Your task to perform on an android device: Search for seafood restaurants on Google Maps Image 0: 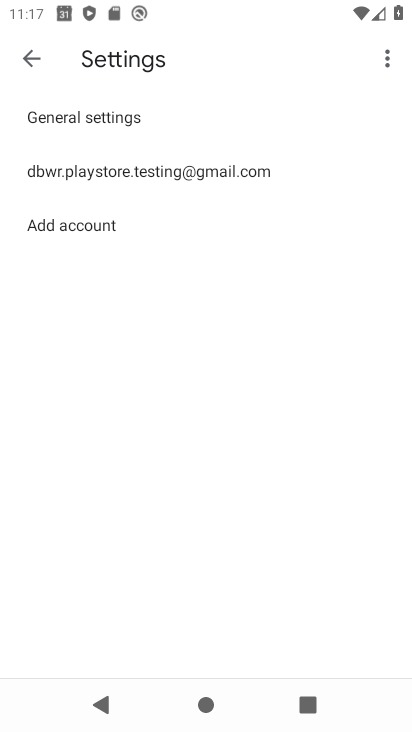
Step 0: press home button
Your task to perform on an android device: Search for seafood restaurants on Google Maps Image 1: 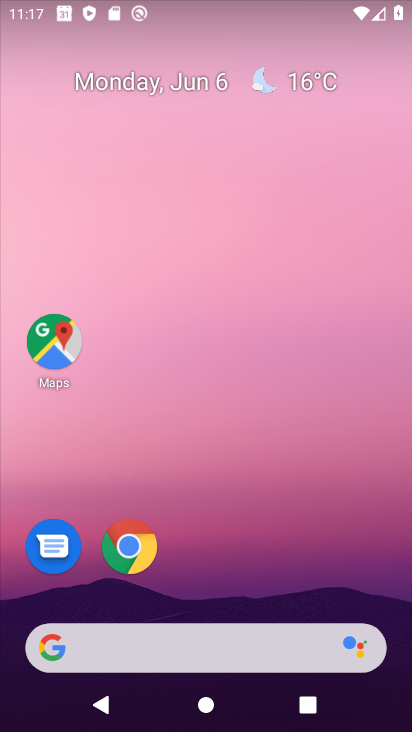
Step 1: click (51, 343)
Your task to perform on an android device: Search for seafood restaurants on Google Maps Image 2: 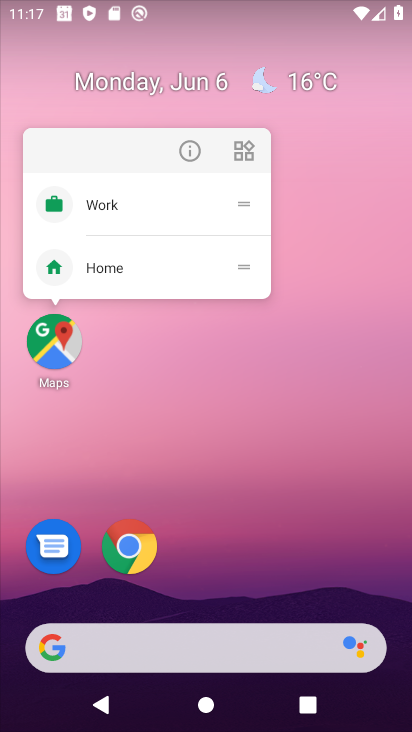
Step 2: click (52, 343)
Your task to perform on an android device: Search for seafood restaurants on Google Maps Image 3: 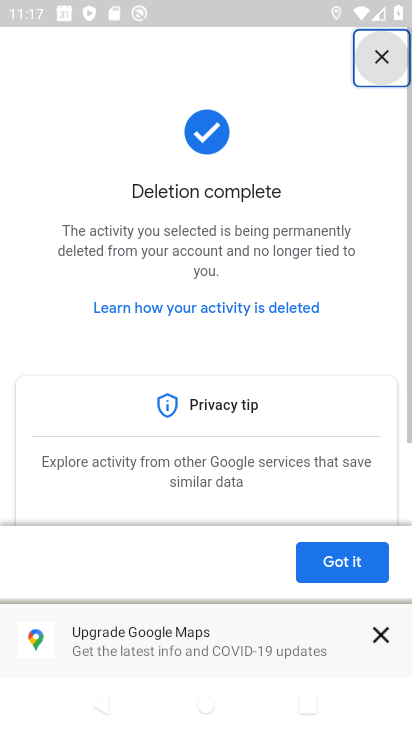
Step 3: click (382, 46)
Your task to perform on an android device: Search for seafood restaurants on Google Maps Image 4: 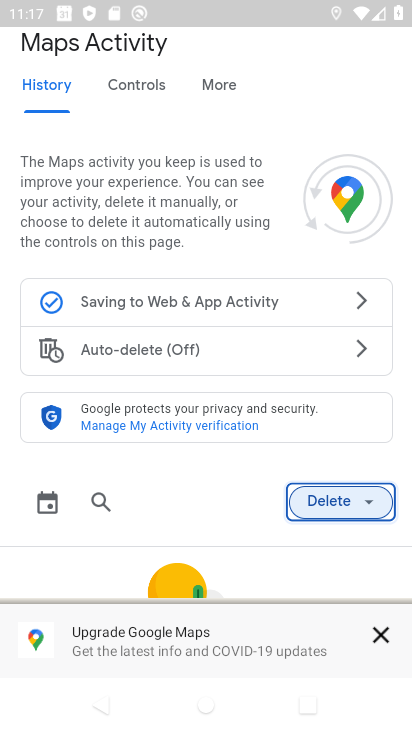
Step 4: press back button
Your task to perform on an android device: Search for seafood restaurants on Google Maps Image 5: 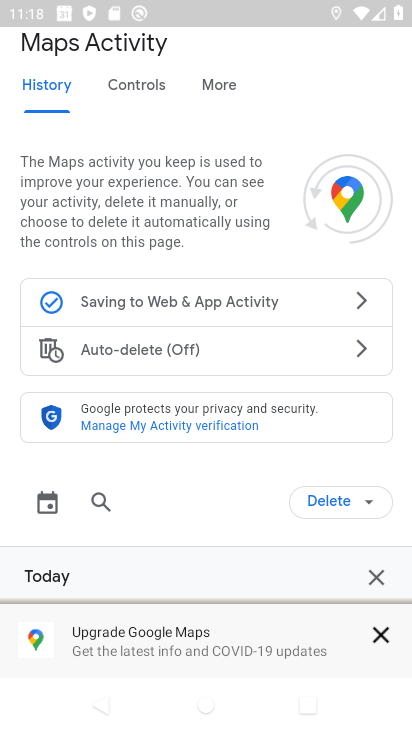
Step 5: press back button
Your task to perform on an android device: Search for seafood restaurants on Google Maps Image 6: 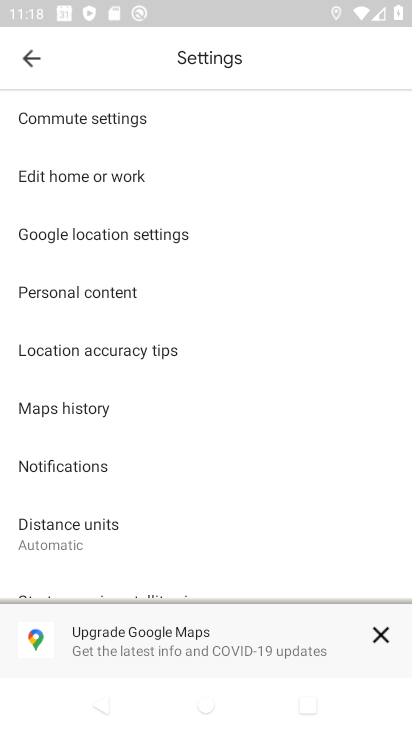
Step 6: press back button
Your task to perform on an android device: Search for seafood restaurants on Google Maps Image 7: 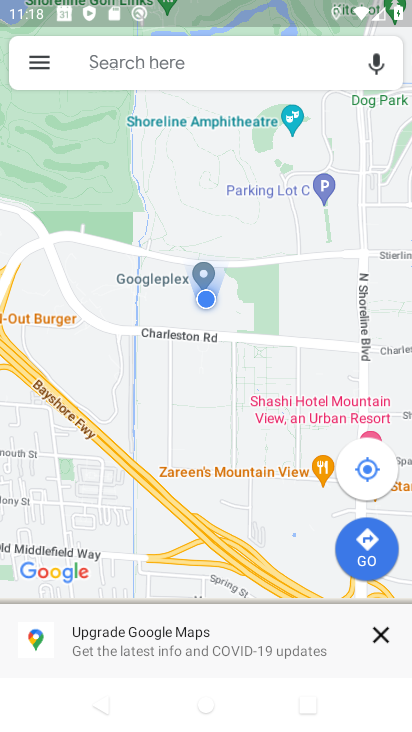
Step 7: click (231, 72)
Your task to perform on an android device: Search for seafood restaurants on Google Maps Image 8: 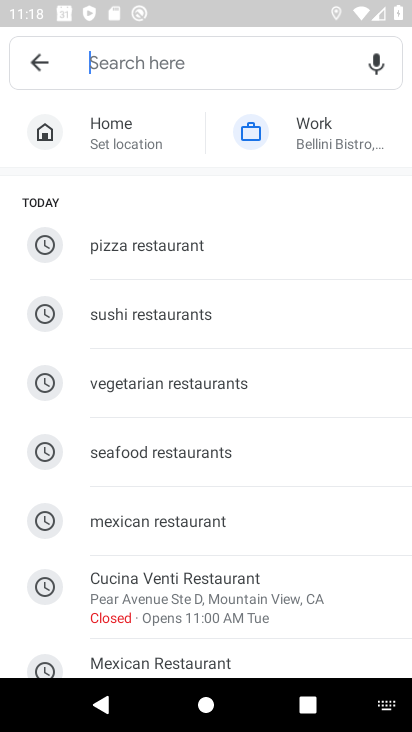
Step 8: click (241, 453)
Your task to perform on an android device: Search for seafood restaurants on Google Maps Image 9: 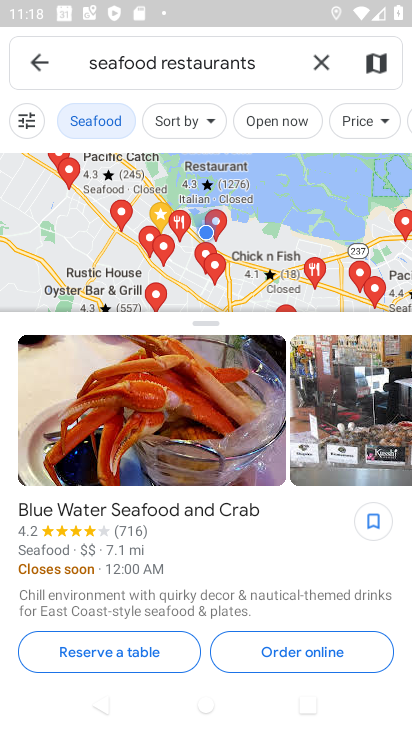
Step 9: task complete